Your task to perform on an android device: set an alarm Image 0: 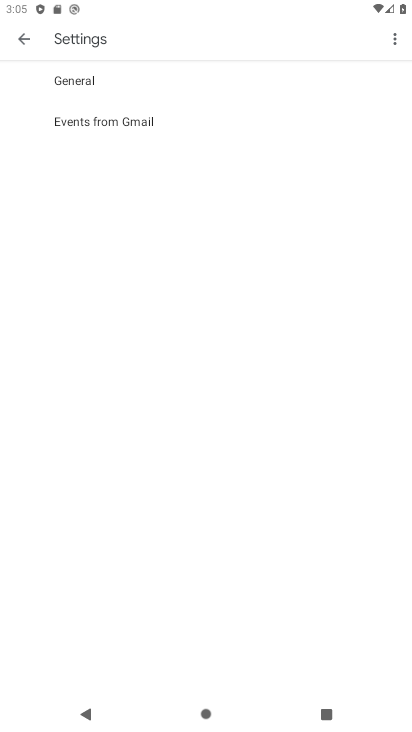
Step 0: press home button
Your task to perform on an android device: set an alarm Image 1: 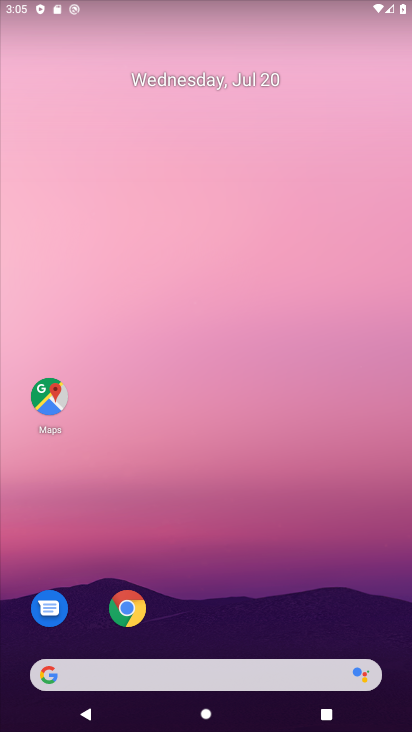
Step 1: drag from (316, 521) to (307, 56)
Your task to perform on an android device: set an alarm Image 2: 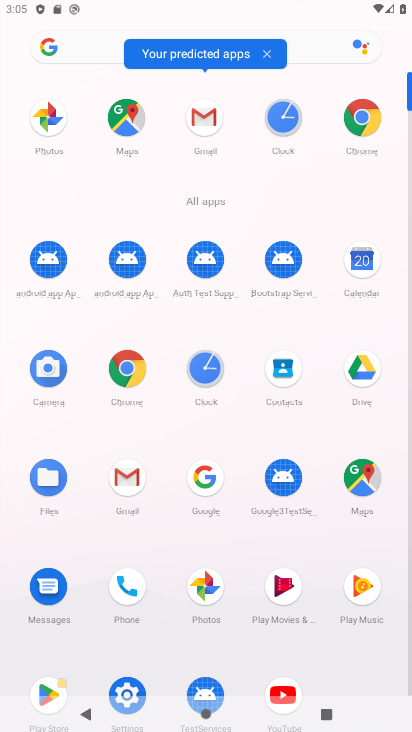
Step 2: click (278, 119)
Your task to perform on an android device: set an alarm Image 3: 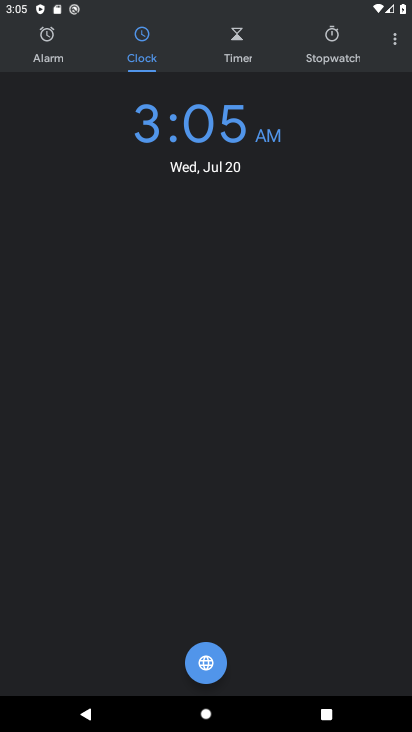
Step 3: click (75, 48)
Your task to perform on an android device: set an alarm Image 4: 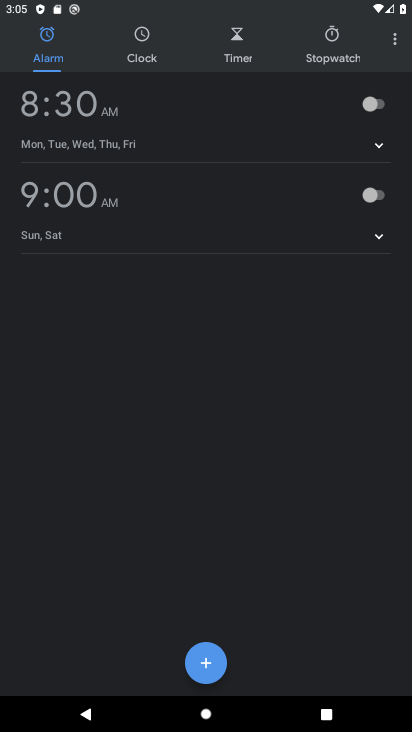
Step 4: click (213, 666)
Your task to perform on an android device: set an alarm Image 5: 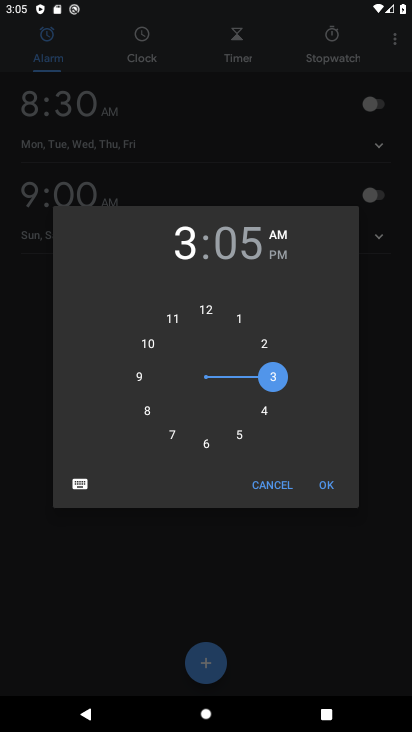
Step 5: click (319, 478)
Your task to perform on an android device: set an alarm Image 6: 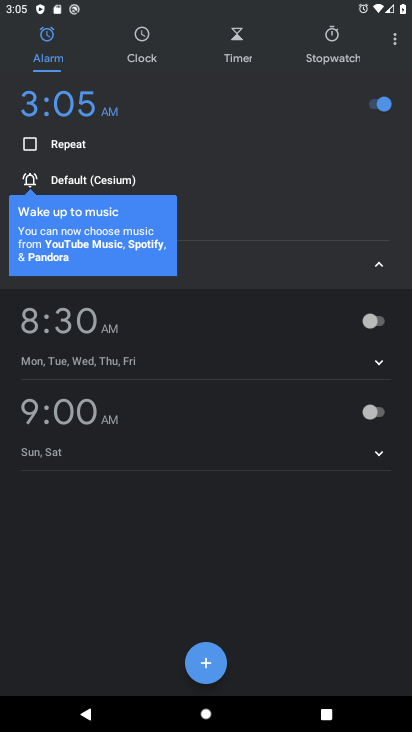
Step 6: click (380, 262)
Your task to perform on an android device: set an alarm Image 7: 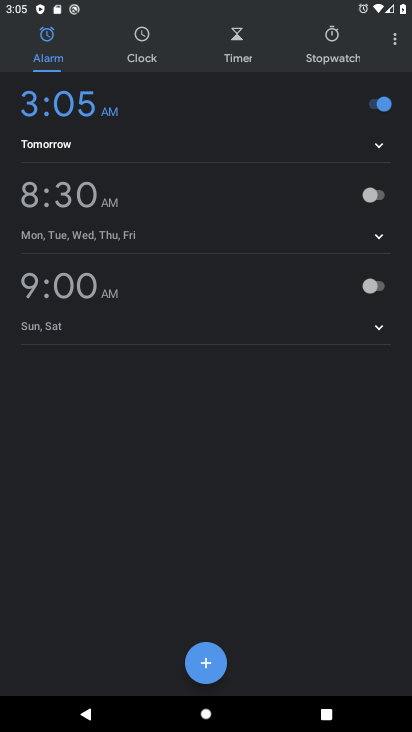
Step 7: task complete